Your task to perform on an android device: Open Google Chrome Image 0: 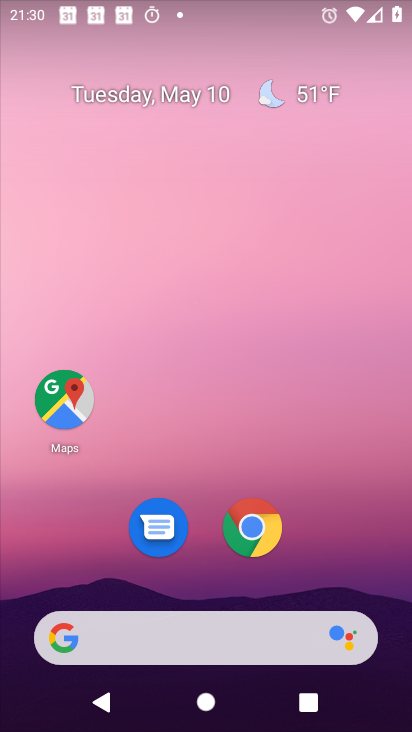
Step 0: drag from (214, 596) to (270, 8)
Your task to perform on an android device: Open Google Chrome Image 1: 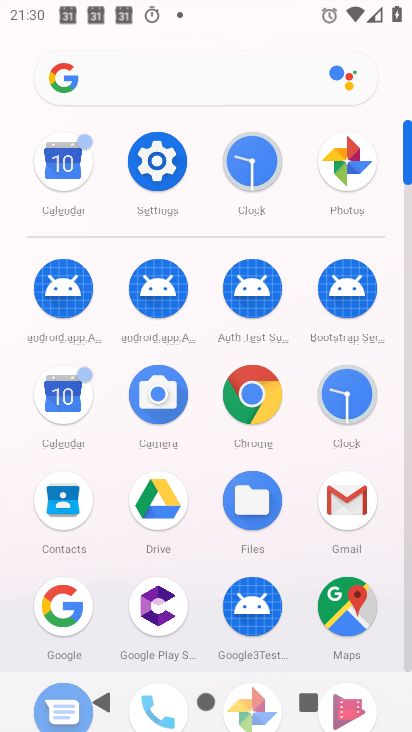
Step 1: click (259, 398)
Your task to perform on an android device: Open Google Chrome Image 2: 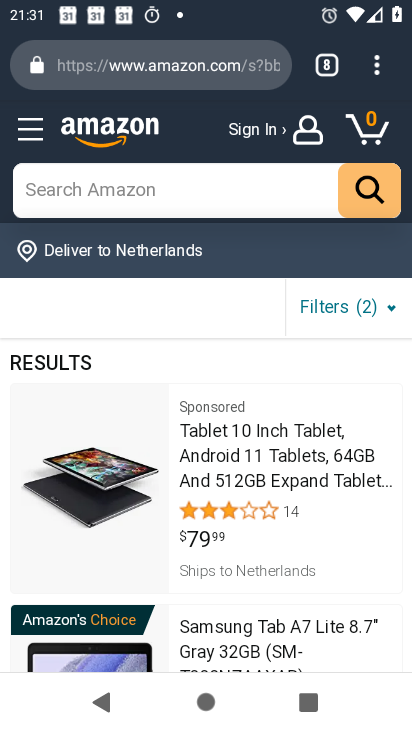
Step 2: task complete